Your task to perform on an android device: Search for vegetarian restaurants on Maps Image 0: 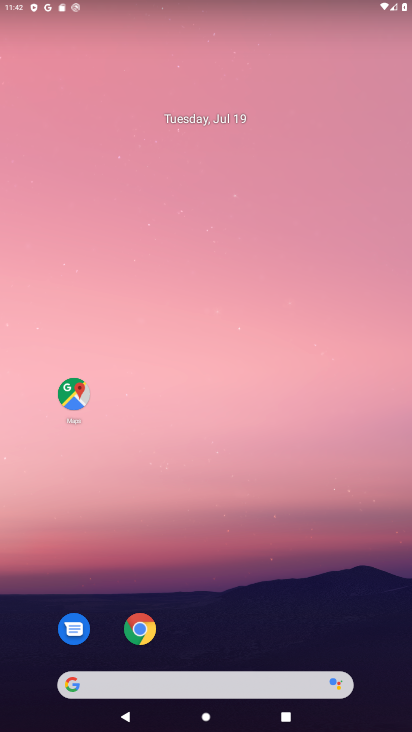
Step 0: click (73, 395)
Your task to perform on an android device: Search for vegetarian restaurants on Maps Image 1: 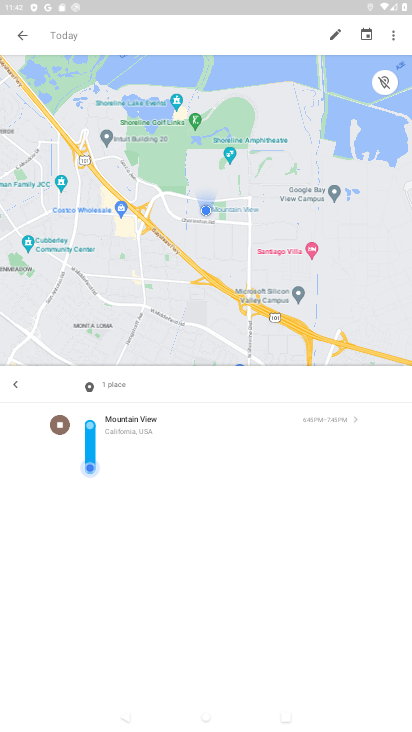
Step 1: press back button
Your task to perform on an android device: Search for vegetarian restaurants on Maps Image 2: 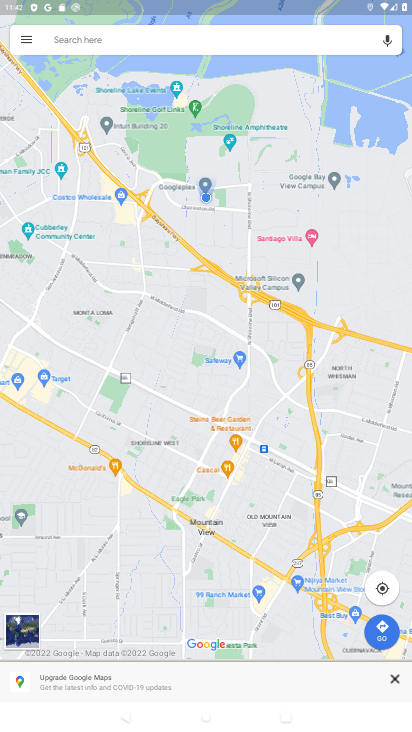
Step 2: click (123, 44)
Your task to perform on an android device: Search for vegetarian restaurants on Maps Image 3: 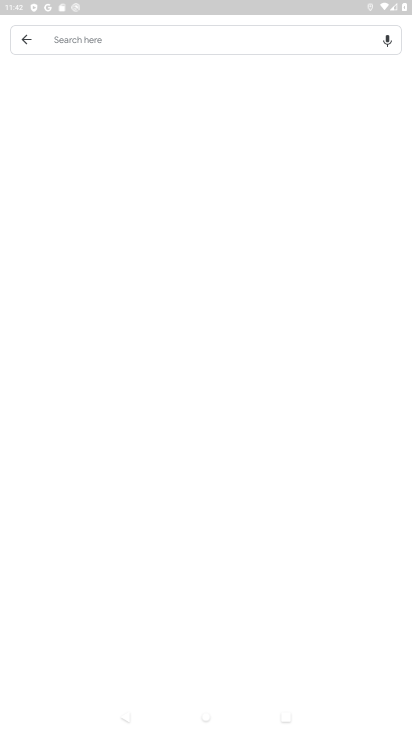
Step 3: click (165, 39)
Your task to perform on an android device: Search for vegetarian restaurants on Maps Image 4: 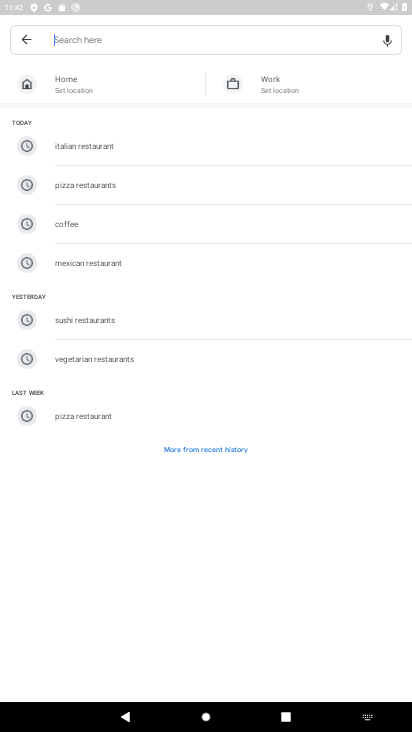
Step 4: type "vegetarian restaurants"
Your task to perform on an android device: Search for vegetarian restaurants on Maps Image 5: 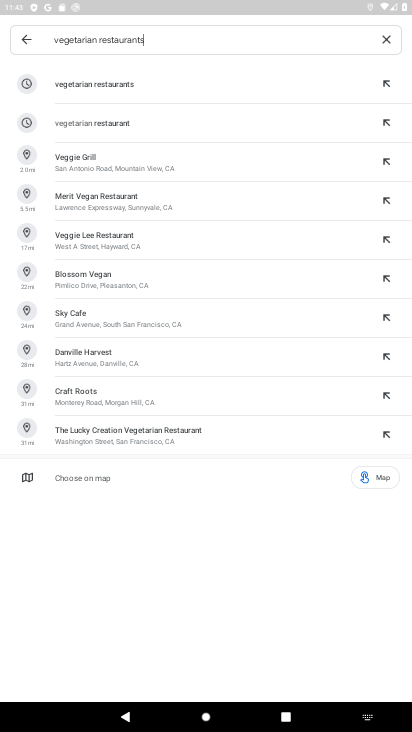
Step 5: click (109, 81)
Your task to perform on an android device: Search for vegetarian restaurants on Maps Image 6: 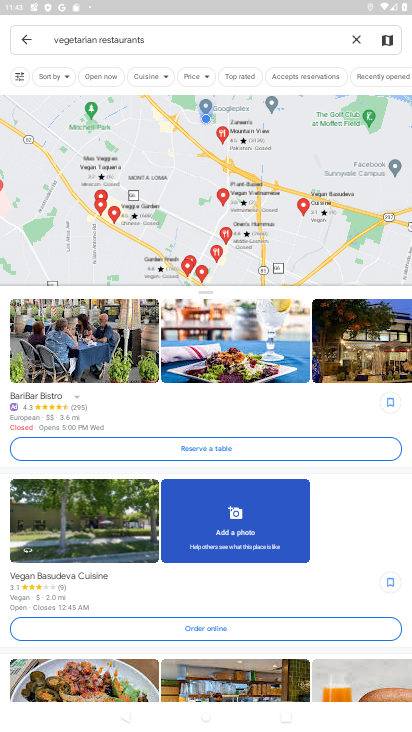
Step 6: task complete